Your task to perform on an android device: What is the news today? Image 0: 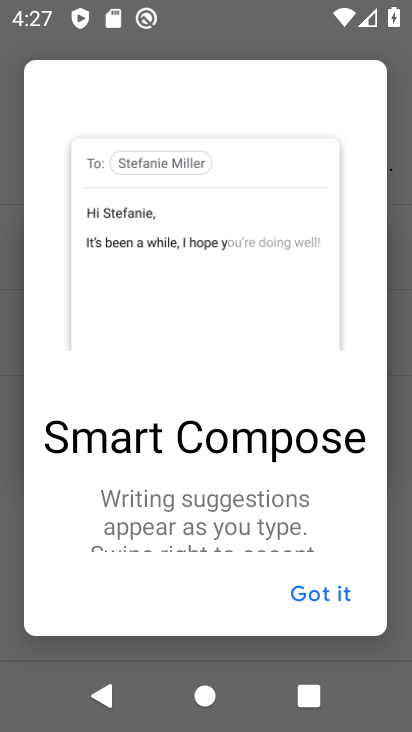
Step 0: press home button
Your task to perform on an android device: What is the news today? Image 1: 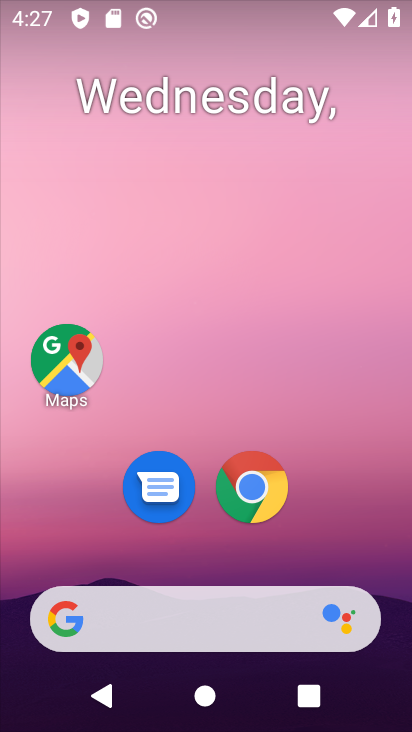
Step 1: click (349, 500)
Your task to perform on an android device: What is the news today? Image 2: 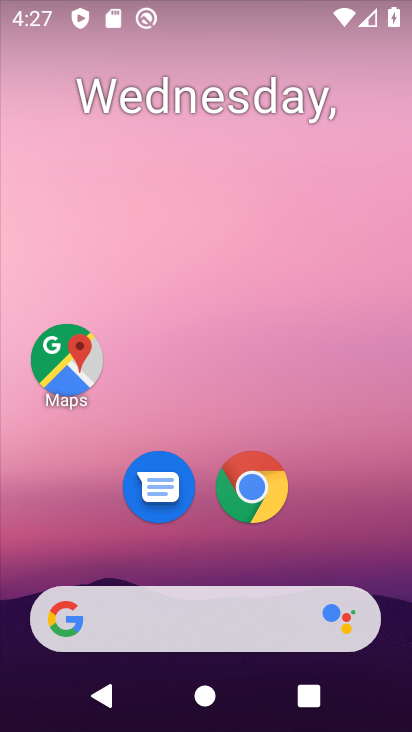
Step 2: click (260, 483)
Your task to perform on an android device: What is the news today? Image 3: 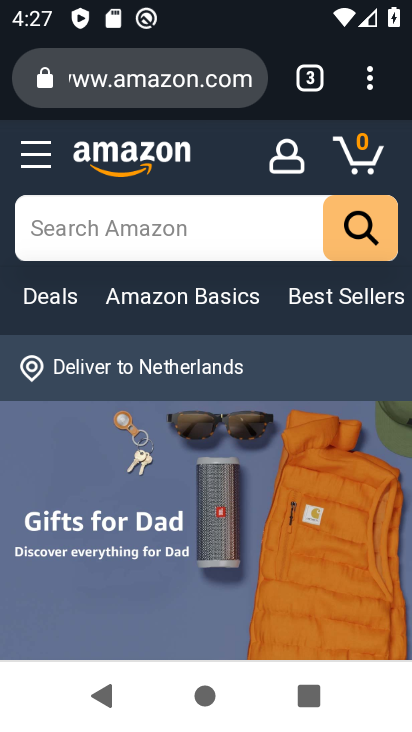
Step 3: click (177, 55)
Your task to perform on an android device: What is the news today? Image 4: 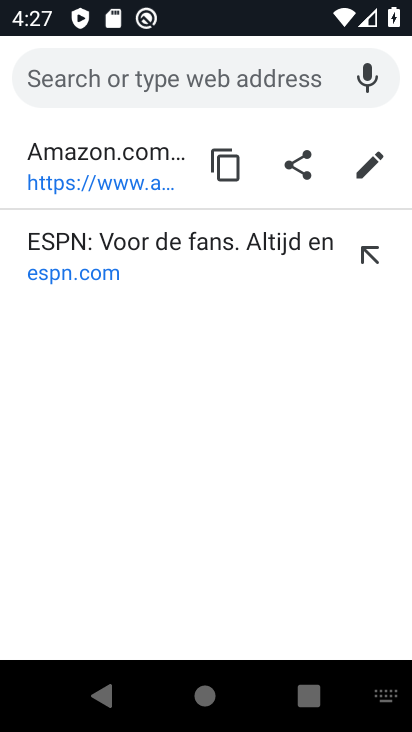
Step 4: type "news"
Your task to perform on an android device: What is the news today? Image 5: 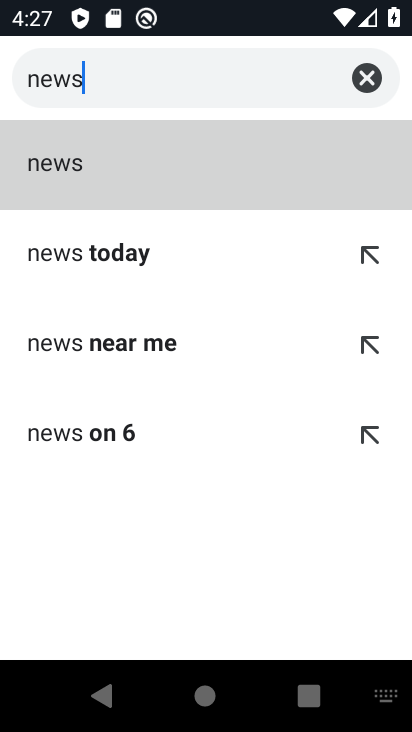
Step 5: click (35, 161)
Your task to perform on an android device: What is the news today? Image 6: 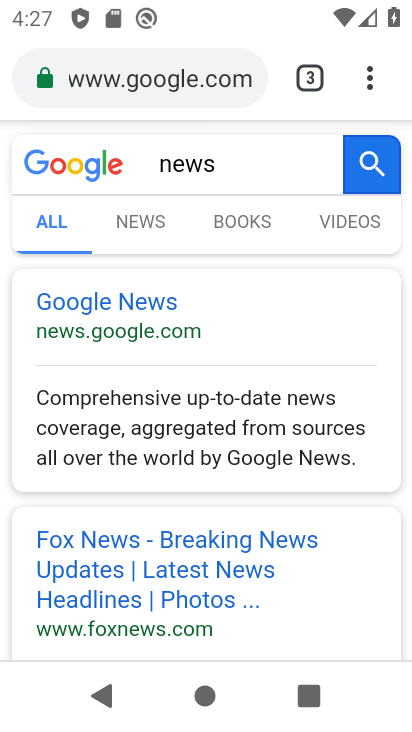
Step 6: click (168, 226)
Your task to perform on an android device: What is the news today? Image 7: 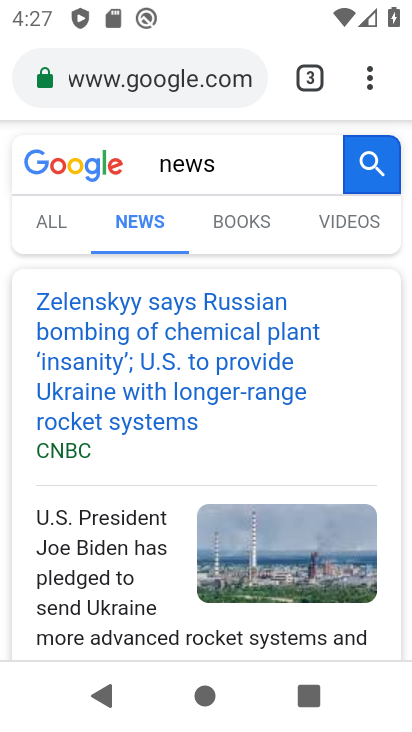
Step 7: task complete